Your task to perform on an android device: open app "Microsoft Excel" (install if not already installed) and enter user name: "kidnappers@icloud.com" and password: "Bessemerizes" Image 0: 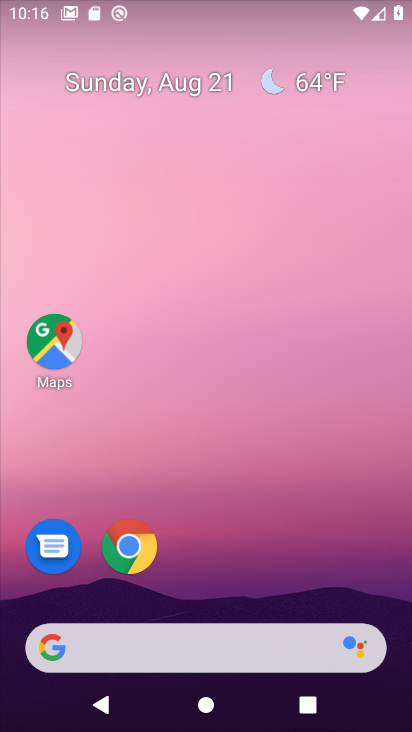
Step 0: drag from (268, 628) to (248, 154)
Your task to perform on an android device: open app "Microsoft Excel" (install if not already installed) and enter user name: "kidnappers@icloud.com" and password: "Bessemerizes" Image 1: 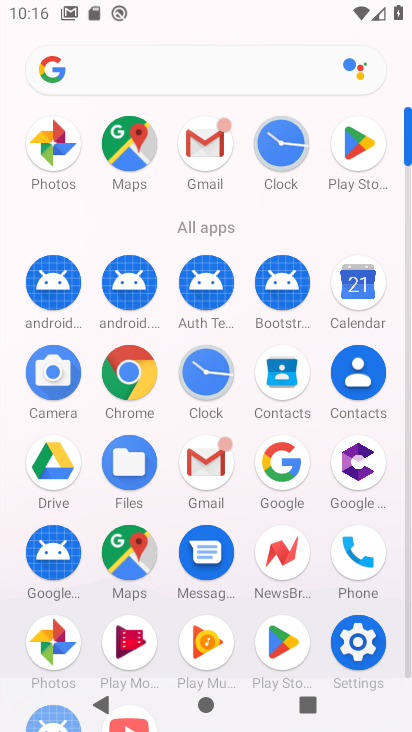
Step 1: click (286, 640)
Your task to perform on an android device: open app "Microsoft Excel" (install if not already installed) and enter user name: "kidnappers@icloud.com" and password: "Bessemerizes" Image 2: 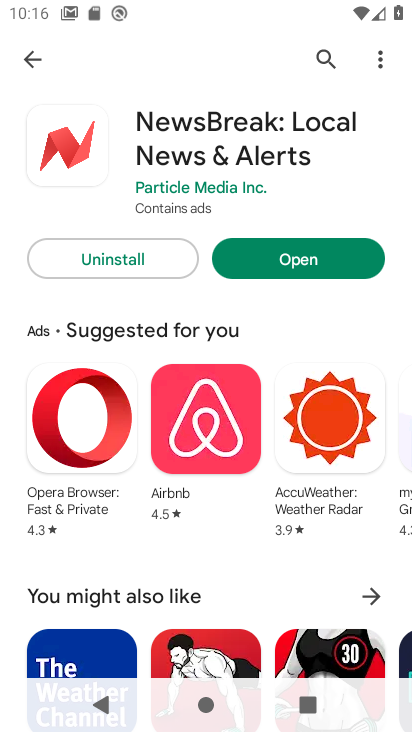
Step 2: click (324, 58)
Your task to perform on an android device: open app "Microsoft Excel" (install if not already installed) and enter user name: "kidnappers@icloud.com" and password: "Bessemerizes" Image 3: 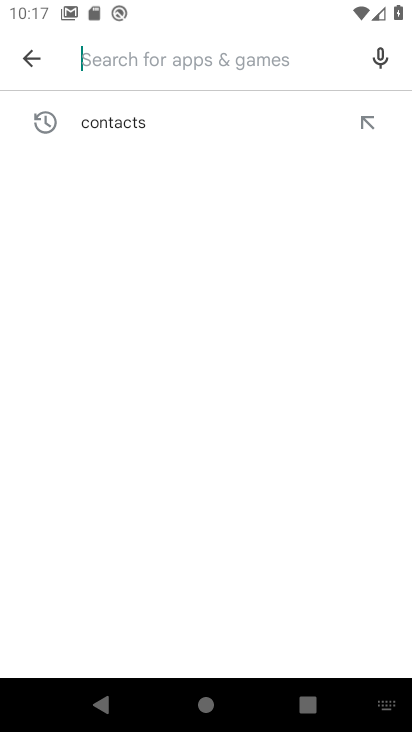
Step 3: type "microsoft excel"
Your task to perform on an android device: open app "Microsoft Excel" (install if not already installed) and enter user name: "kidnappers@icloud.com" and password: "Bessemerizes" Image 4: 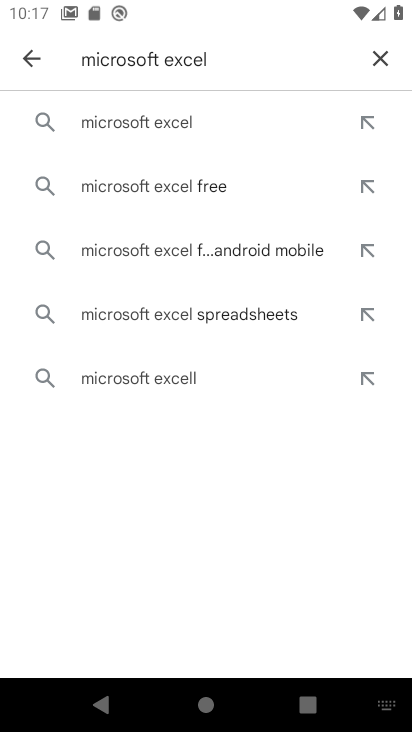
Step 4: click (171, 124)
Your task to perform on an android device: open app "Microsoft Excel" (install if not already installed) and enter user name: "kidnappers@icloud.com" and password: "Bessemerizes" Image 5: 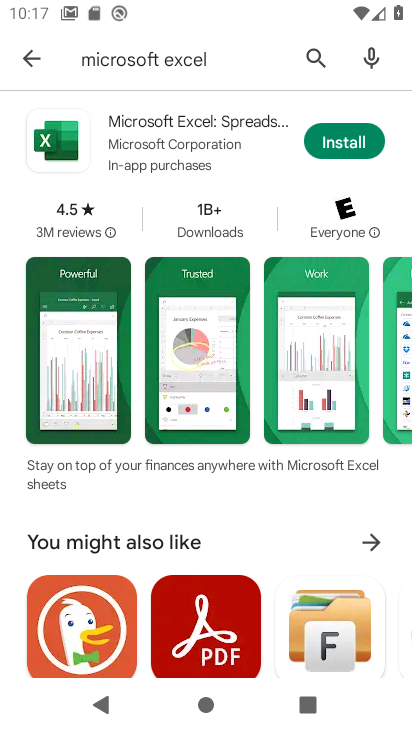
Step 5: click (365, 134)
Your task to perform on an android device: open app "Microsoft Excel" (install if not already installed) and enter user name: "kidnappers@icloud.com" and password: "Bessemerizes" Image 6: 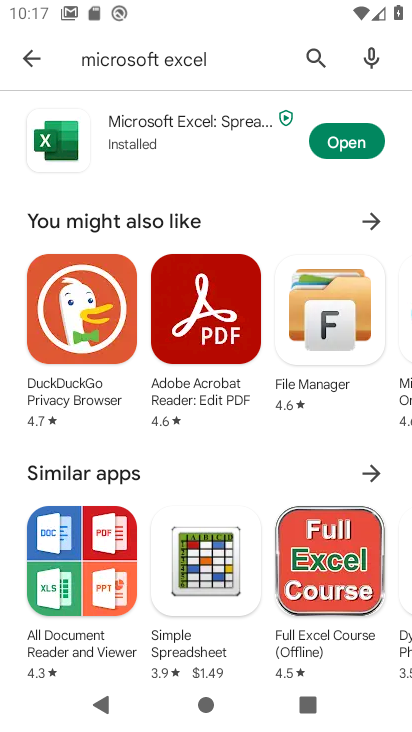
Step 6: click (332, 137)
Your task to perform on an android device: open app "Microsoft Excel" (install if not already installed) and enter user name: "kidnappers@icloud.com" and password: "Bessemerizes" Image 7: 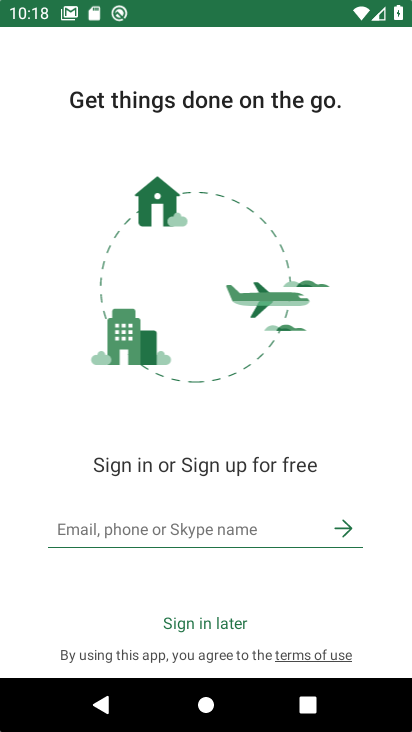
Step 7: click (103, 527)
Your task to perform on an android device: open app "Microsoft Excel" (install if not already installed) and enter user name: "kidnappers@icloud.com" and password: "Bessemerizes" Image 8: 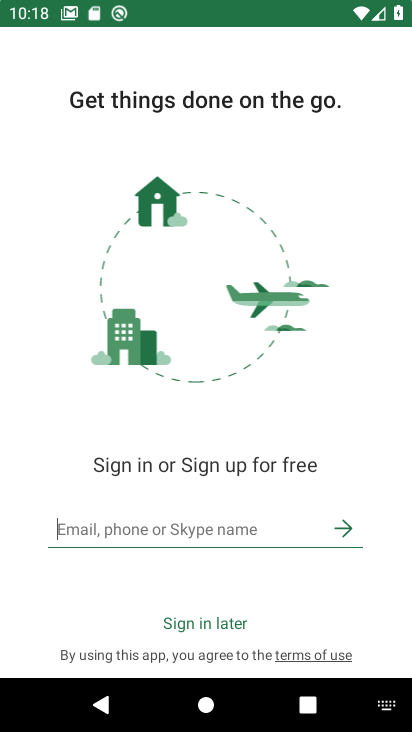
Step 8: type "kidnappers@icloud.com"
Your task to perform on an android device: open app "Microsoft Excel" (install if not already installed) and enter user name: "kidnappers@icloud.com" and password: "Bessemerizes" Image 9: 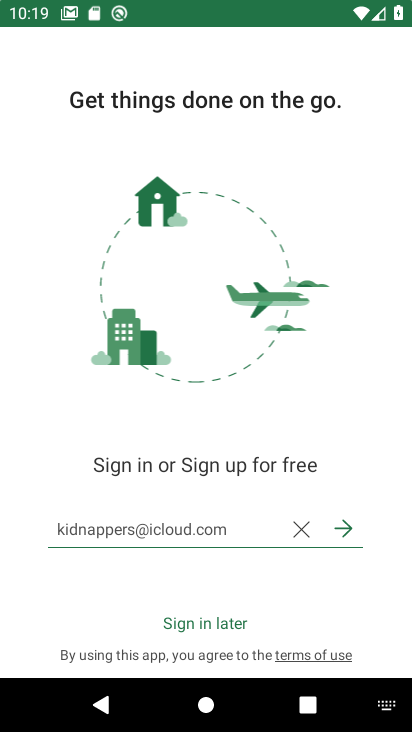
Step 9: click (348, 529)
Your task to perform on an android device: open app "Microsoft Excel" (install if not already installed) and enter user name: "kidnappers@icloud.com" and password: "Bessemerizes" Image 10: 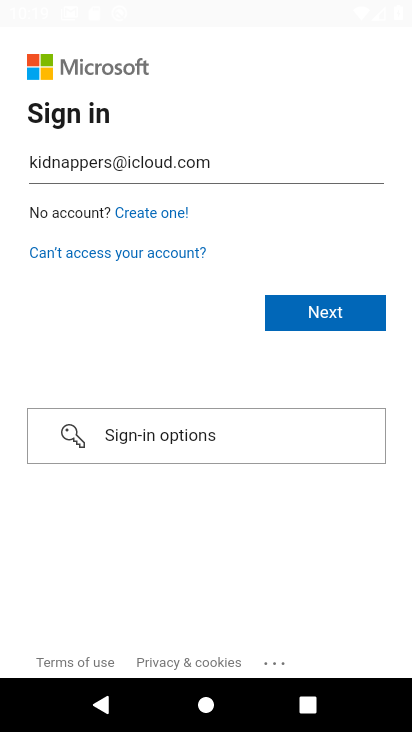
Step 10: task complete